Your task to perform on an android device: refresh tabs in the chrome app Image 0: 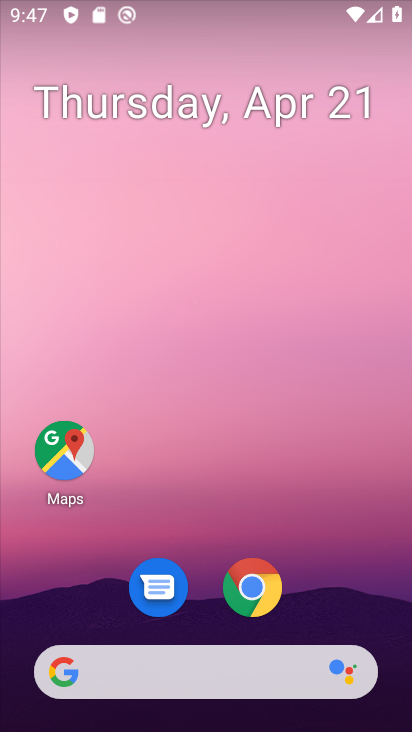
Step 0: drag from (337, 603) to (354, 93)
Your task to perform on an android device: refresh tabs in the chrome app Image 1: 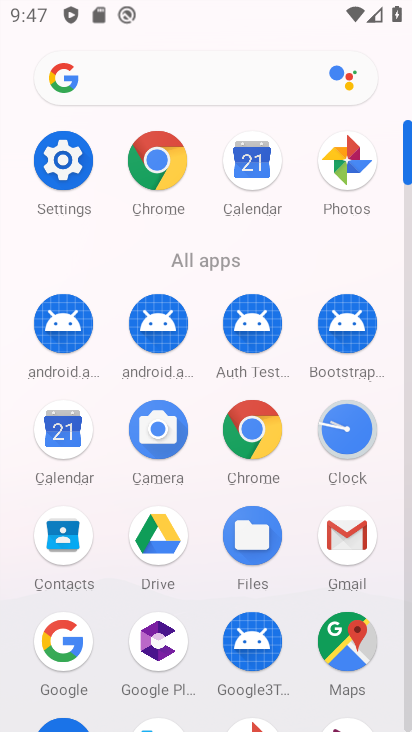
Step 1: click (250, 440)
Your task to perform on an android device: refresh tabs in the chrome app Image 2: 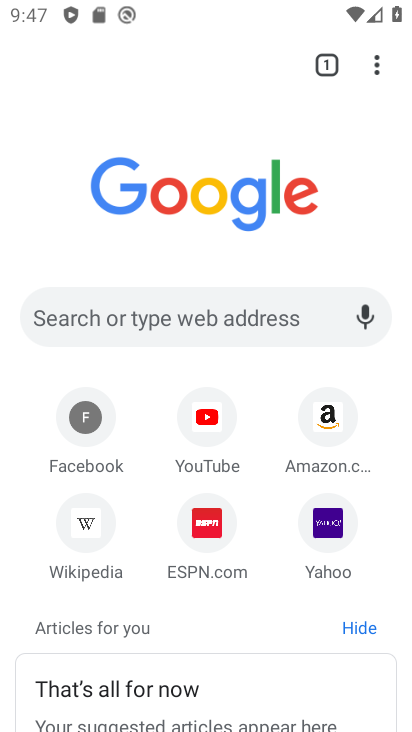
Step 2: click (375, 70)
Your task to perform on an android device: refresh tabs in the chrome app Image 3: 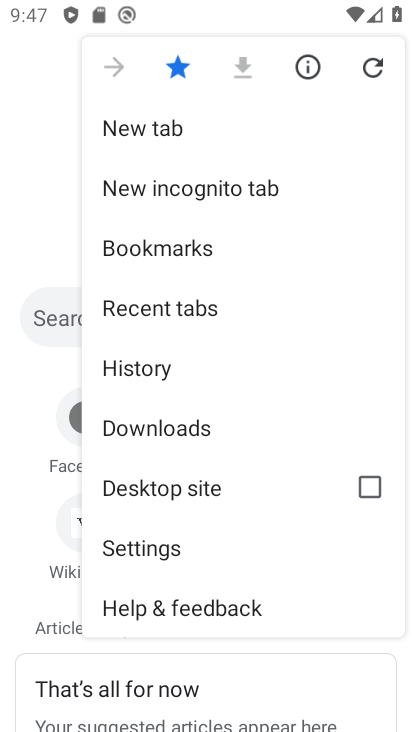
Step 3: click (371, 67)
Your task to perform on an android device: refresh tabs in the chrome app Image 4: 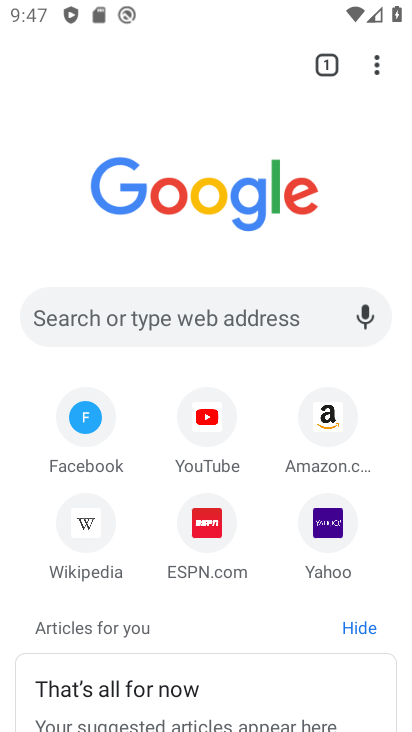
Step 4: task complete